Your task to perform on an android device: toggle show notifications on the lock screen Image 0: 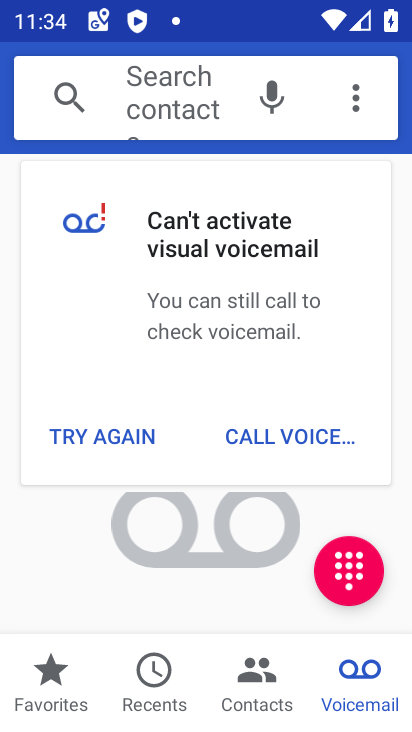
Step 0: press back button
Your task to perform on an android device: toggle show notifications on the lock screen Image 1: 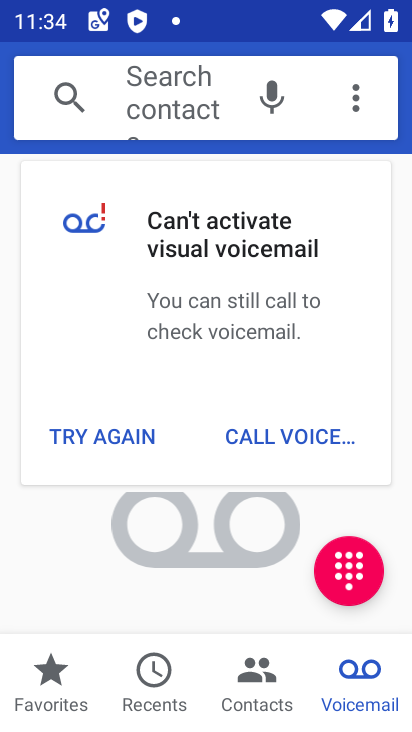
Step 1: press back button
Your task to perform on an android device: toggle show notifications on the lock screen Image 2: 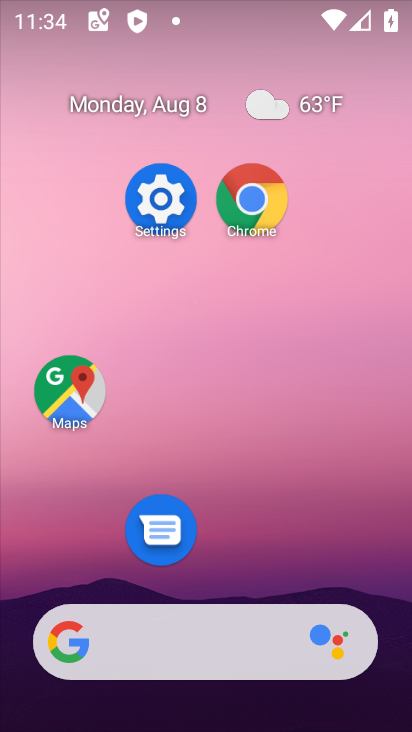
Step 2: drag from (225, 679) to (138, 235)
Your task to perform on an android device: toggle show notifications on the lock screen Image 3: 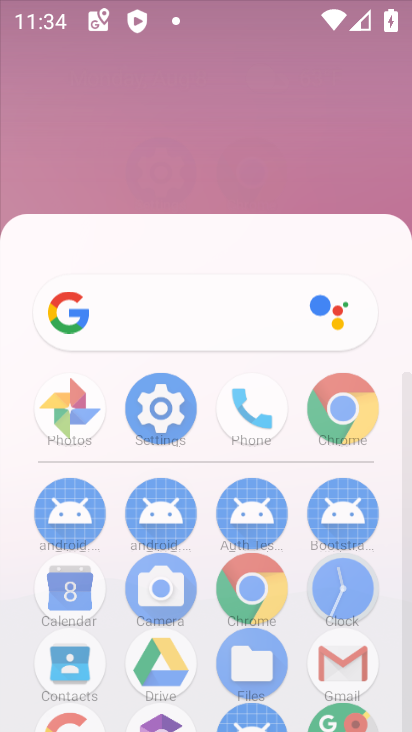
Step 3: drag from (249, 670) to (236, 163)
Your task to perform on an android device: toggle show notifications on the lock screen Image 4: 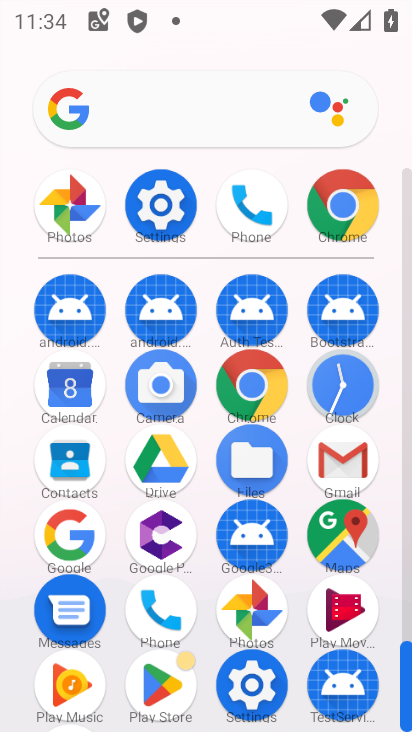
Step 4: drag from (243, 485) to (227, 279)
Your task to perform on an android device: toggle show notifications on the lock screen Image 5: 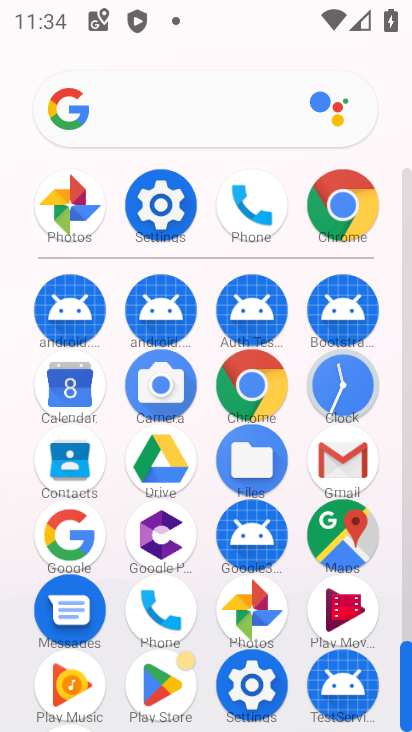
Step 5: click (244, 668)
Your task to perform on an android device: toggle show notifications on the lock screen Image 6: 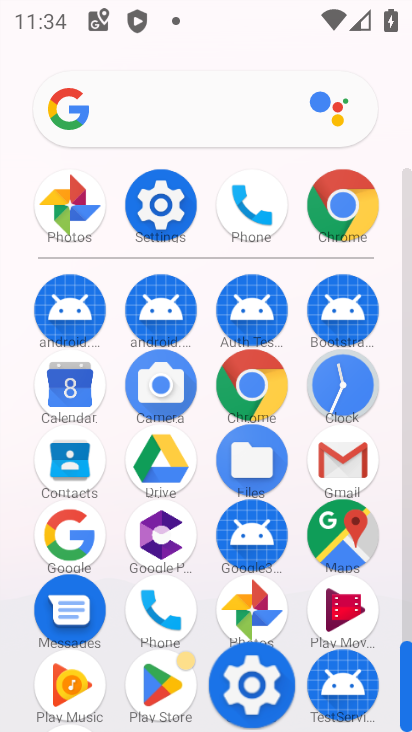
Step 6: click (244, 668)
Your task to perform on an android device: toggle show notifications on the lock screen Image 7: 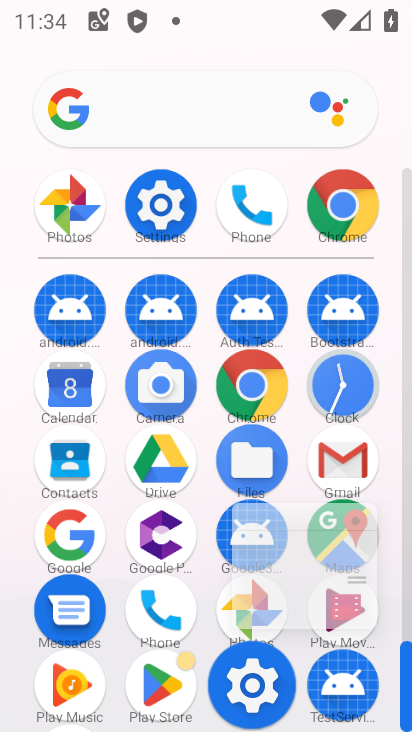
Step 7: click (244, 668)
Your task to perform on an android device: toggle show notifications on the lock screen Image 8: 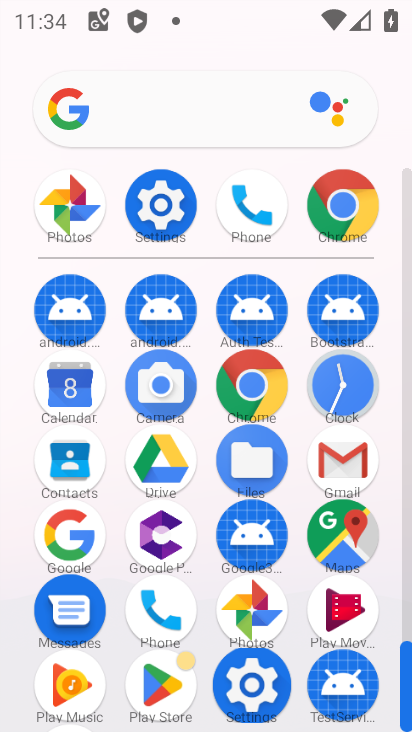
Step 8: click (240, 683)
Your task to perform on an android device: toggle show notifications on the lock screen Image 9: 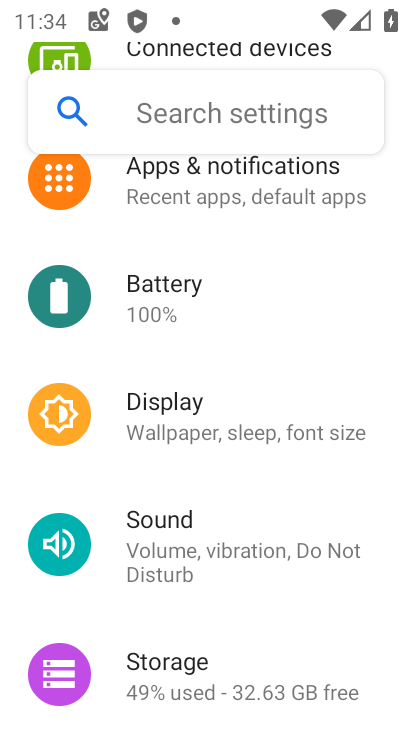
Step 9: drag from (252, 621) to (197, 338)
Your task to perform on an android device: toggle show notifications on the lock screen Image 10: 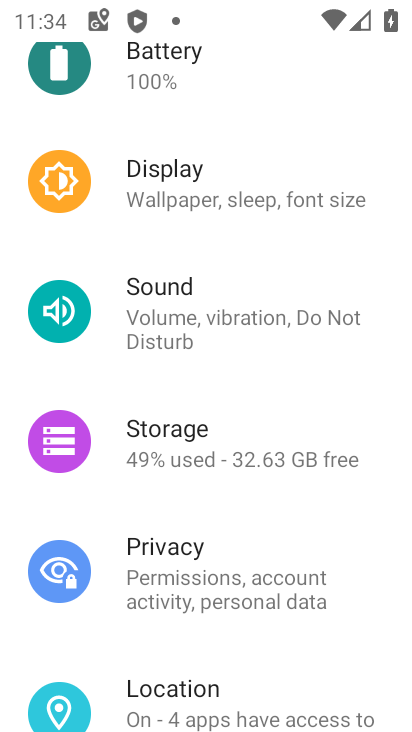
Step 10: drag from (215, 482) to (206, 309)
Your task to perform on an android device: toggle show notifications on the lock screen Image 11: 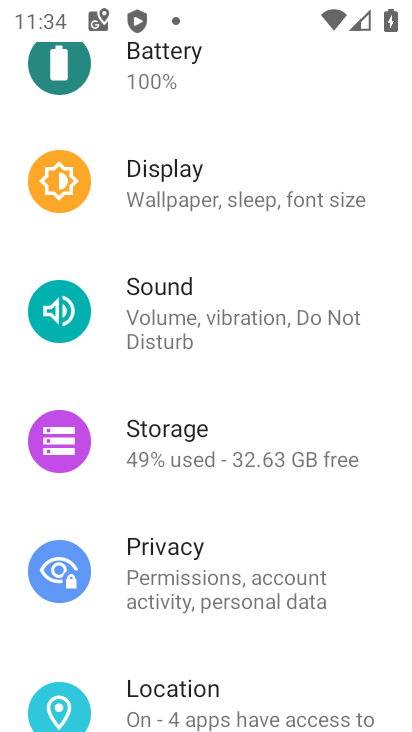
Step 11: drag from (204, 222) to (251, 508)
Your task to perform on an android device: toggle show notifications on the lock screen Image 12: 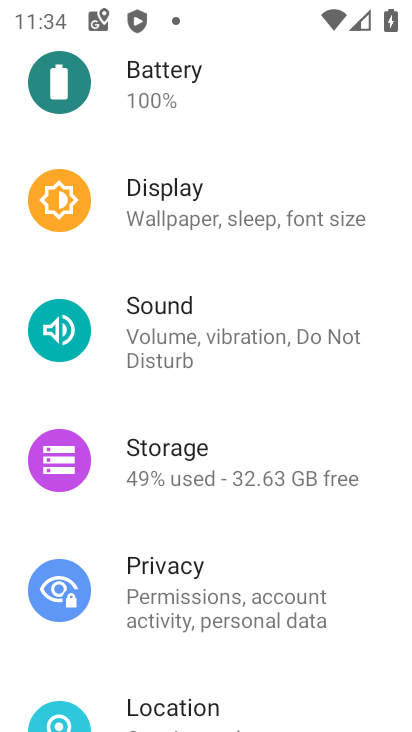
Step 12: drag from (168, 186) to (219, 523)
Your task to perform on an android device: toggle show notifications on the lock screen Image 13: 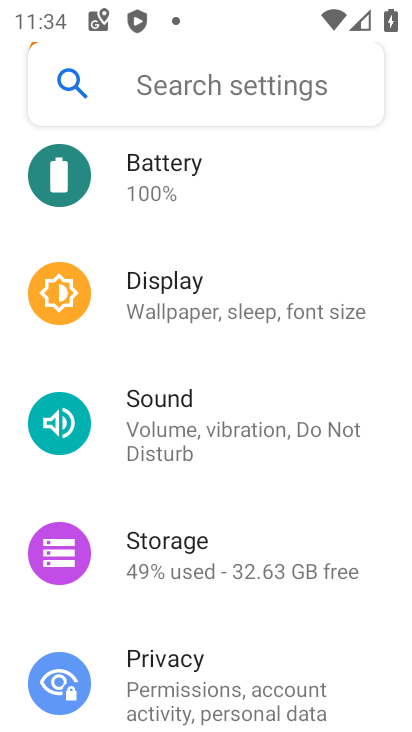
Step 13: drag from (154, 179) to (205, 470)
Your task to perform on an android device: toggle show notifications on the lock screen Image 14: 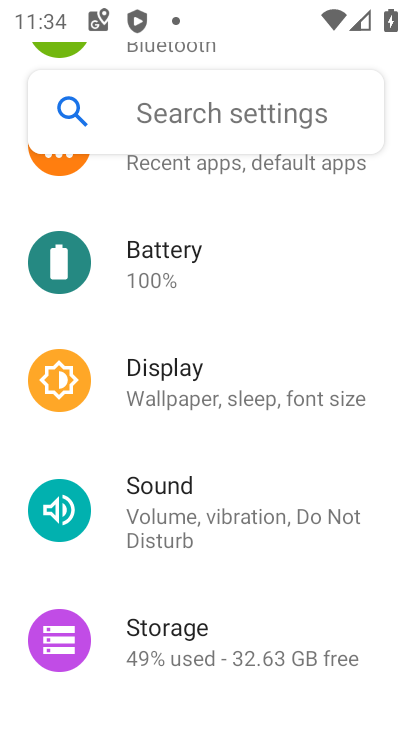
Step 14: drag from (197, 231) to (293, 480)
Your task to perform on an android device: toggle show notifications on the lock screen Image 15: 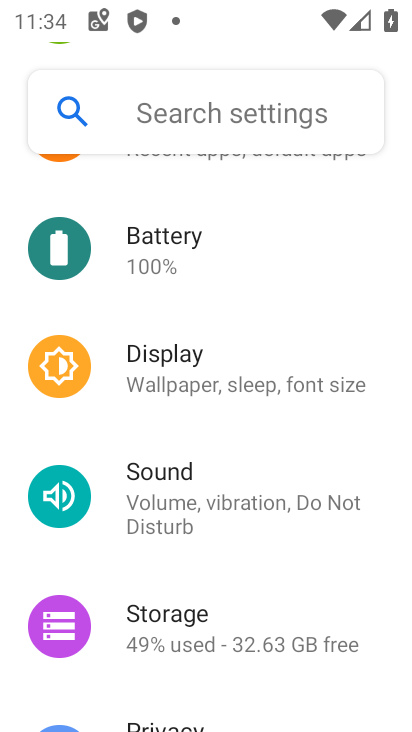
Step 15: drag from (226, 243) to (246, 493)
Your task to perform on an android device: toggle show notifications on the lock screen Image 16: 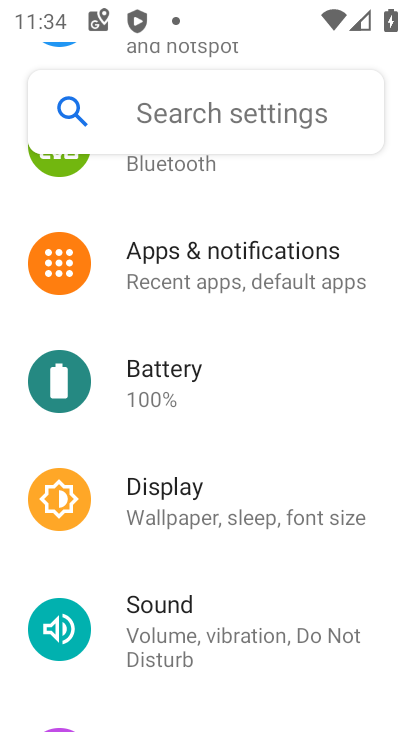
Step 16: drag from (229, 526) to (250, 598)
Your task to perform on an android device: toggle show notifications on the lock screen Image 17: 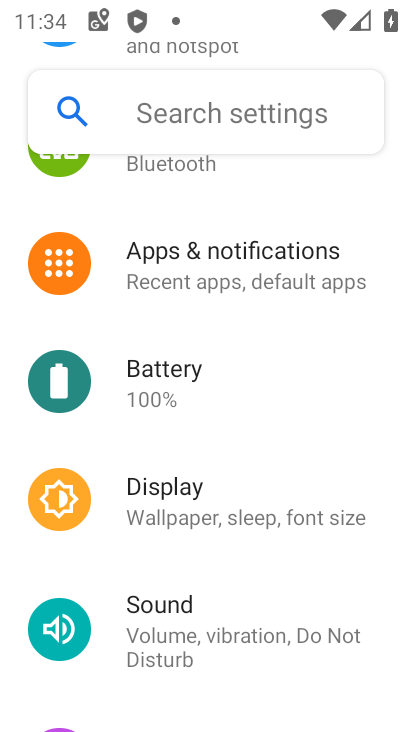
Step 17: drag from (212, 258) to (232, 494)
Your task to perform on an android device: toggle show notifications on the lock screen Image 18: 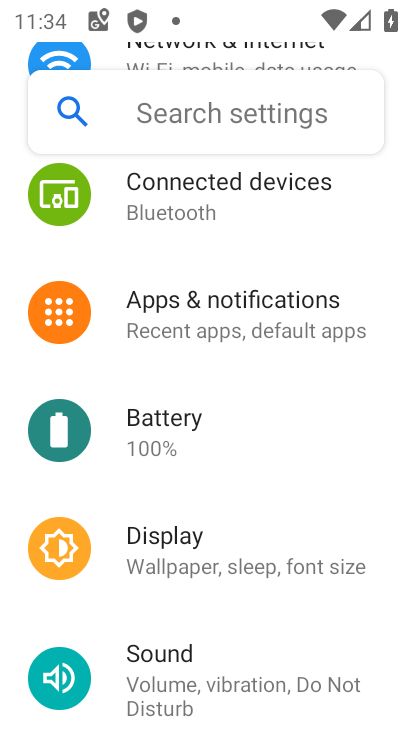
Step 18: click (233, 315)
Your task to perform on an android device: toggle show notifications on the lock screen Image 19: 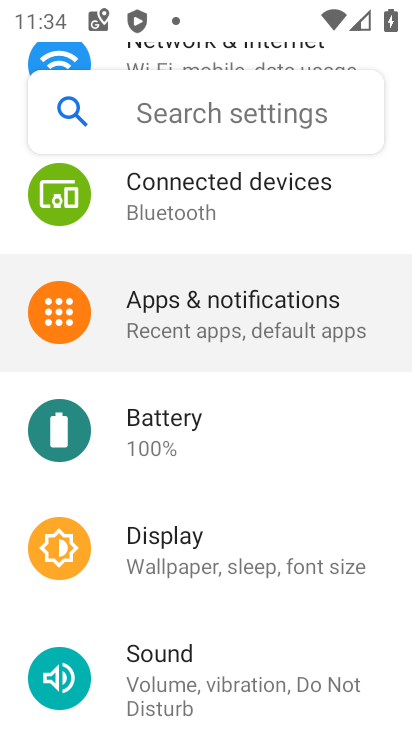
Step 19: click (242, 322)
Your task to perform on an android device: toggle show notifications on the lock screen Image 20: 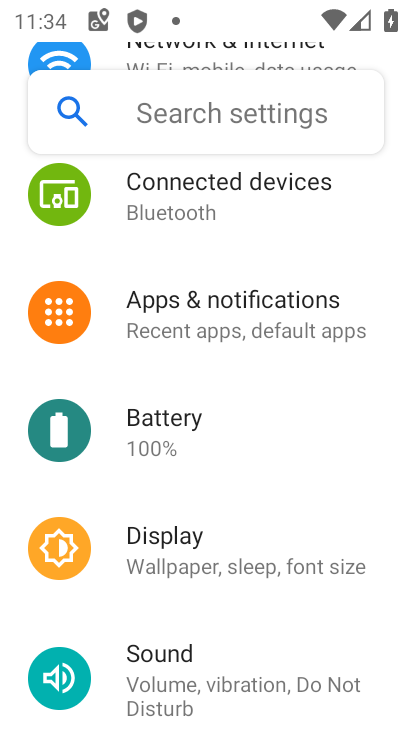
Step 20: click (246, 329)
Your task to perform on an android device: toggle show notifications on the lock screen Image 21: 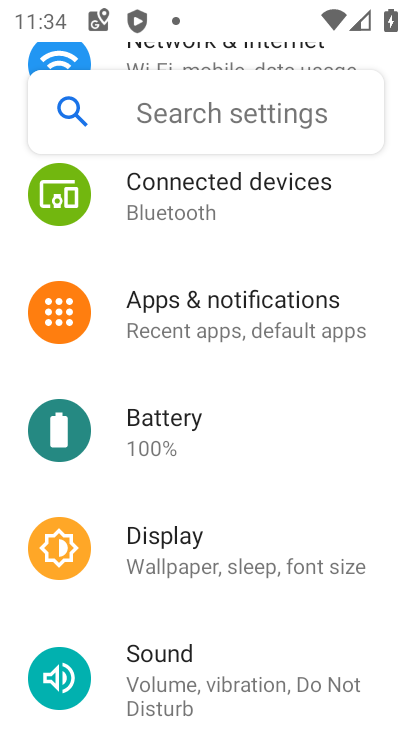
Step 21: click (246, 330)
Your task to perform on an android device: toggle show notifications on the lock screen Image 22: 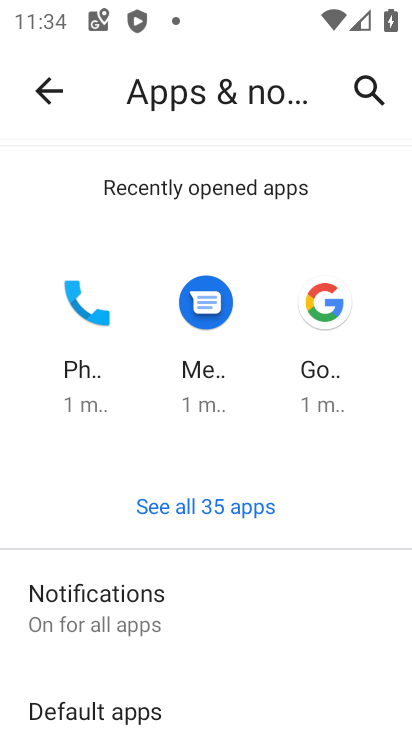
Step 22: click (87, 612)
Your task to perform on an android device: toggle show notifications on the lock screen Image 23: 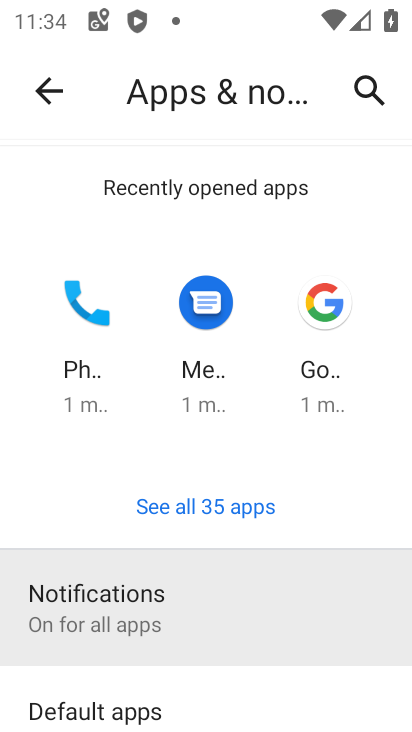
Step 23: click (88, 613)
Your task to perform on an android device: toggle show notifications on the lock screen Image 24: 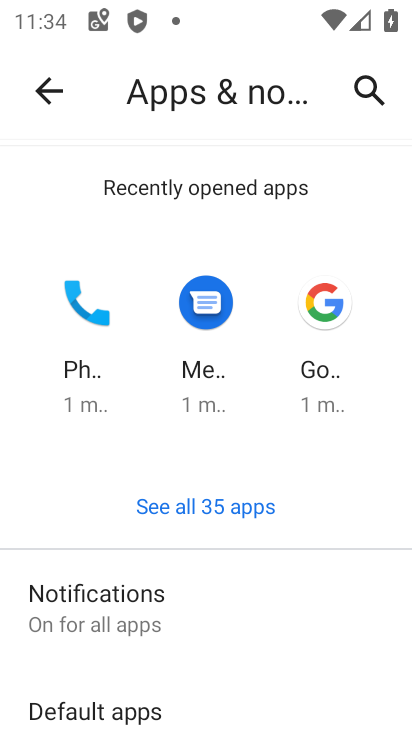
Step 24: click (92, 616)
Your task to perform on an android device: toggle show notifications on the lock screen Image 25: 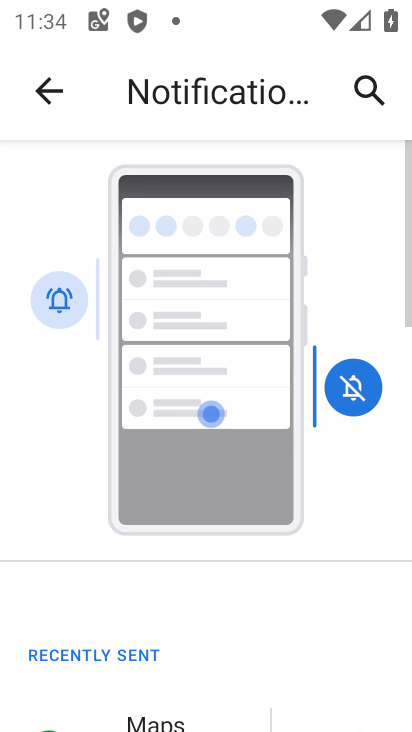
Step 25: drag from (176, 619) to (146, 175)
Your task to perform on an android device: toggle show notifications on the lock screen Image 26: 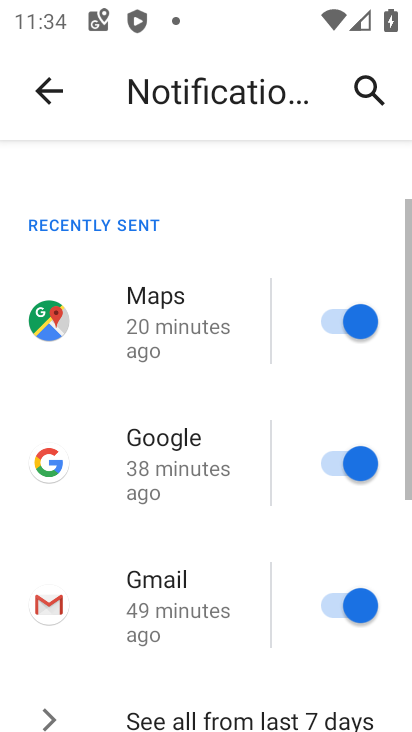
Step 26: drag from (199, 532) to (197, 322)
Your task to perform on an android device: toggle show notifications on the lock screen Image 27: 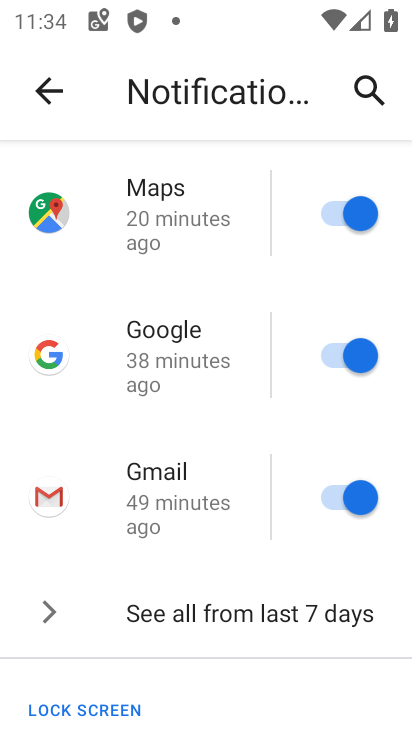
Step 27: drag from (176, 621) to (118, 194)
Your task to perform on an android device: toggle show notifications on the lock screen Image 28: 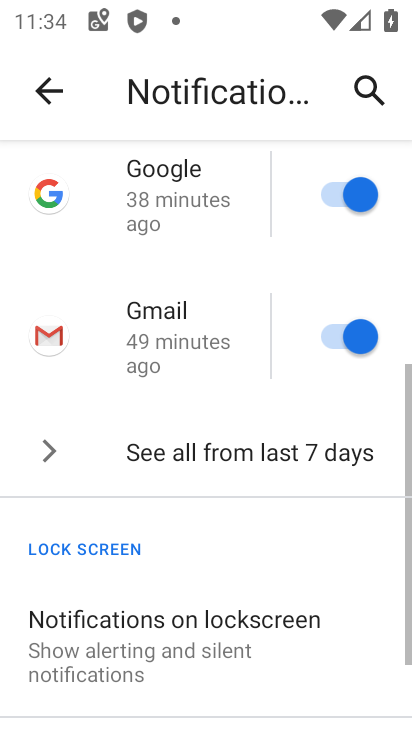
Step 28: drag from (136, 448) to (92, 98)
Your task to perform on an android device: toggle show notifications on the lock screen Image 29: 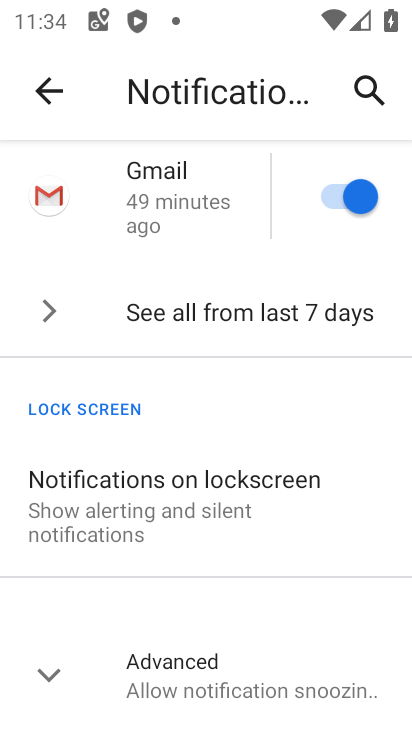
Step 29: drag from (148, 539) to (152, 79)
Your task to perform on an android device: toggle show notifications on the lock screen Image 30: 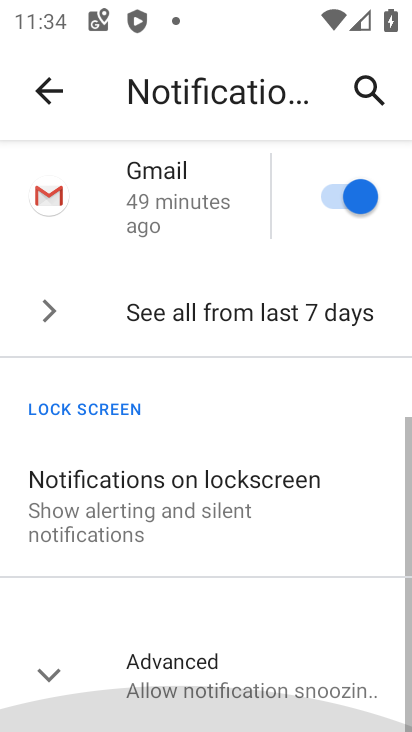
Step 30: drag from (168, 435) to (146, 198)
Your task to perform on an android device: toggle show notifications on the lock screen Image 31: 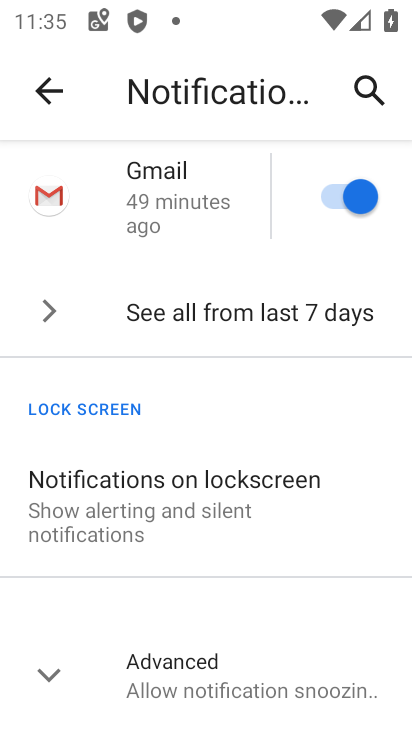
Step 31: drag from (215, 648) to (168, 404)
Your task to perform on an android device: toggle show notifications on the lock screen Image 32: 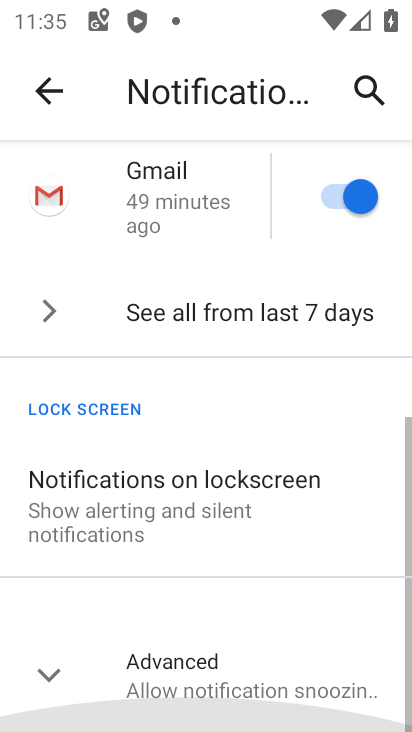
Step 32: drag from (281, 728) to (252, 255)
Your task to perform on an android device: toggle show notifications on the lock screen Image 33: 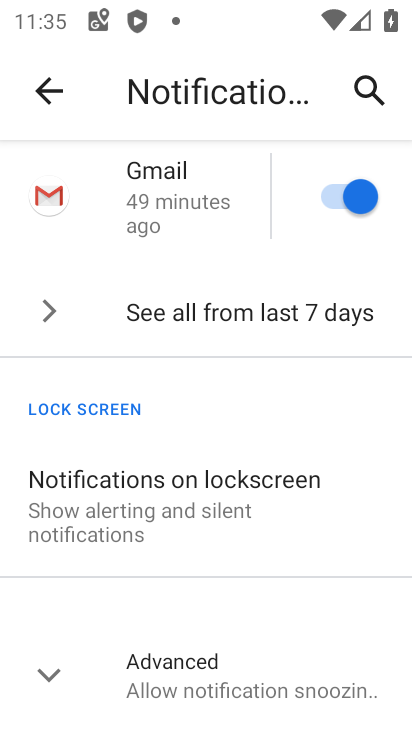
Step 33: click (142, 499)
Your task to perform on an android device: toggle show notifications on the lock screen Image 34: 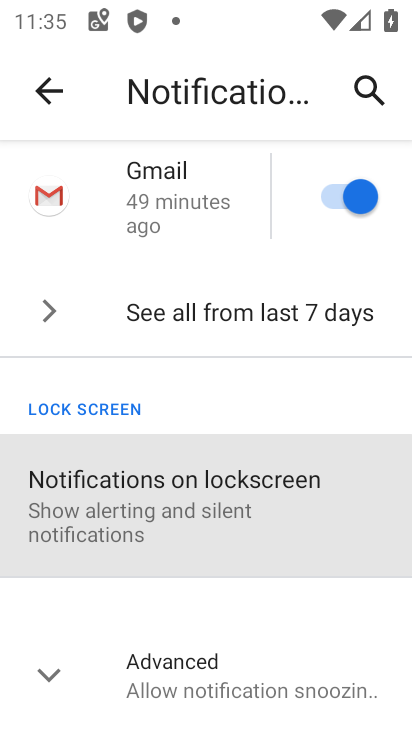
Step 34: click (139, 494)
Your task to perform on an android device: toggle show notifications on the lock screen Image 35: 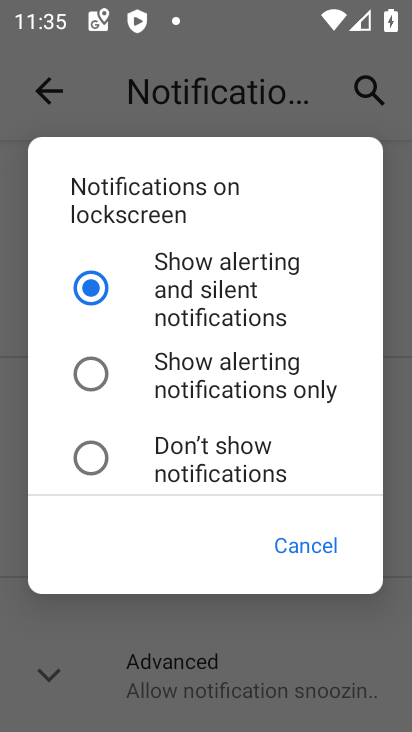
Step 35: task complete